Your task to perform on an android device: When is my next appointment? Image 0: 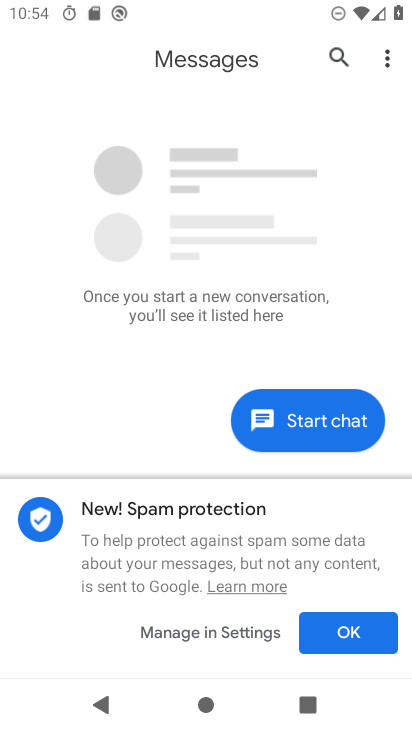
Step 0: press home button
Your task to perform on an android device: When is my next appointment? Image 1: 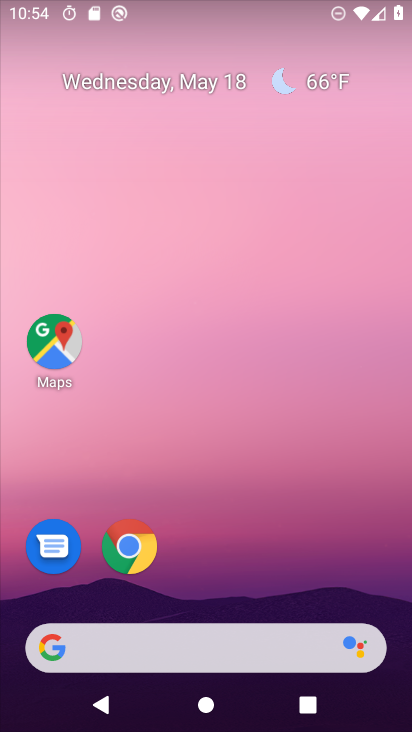
Step 1: press home button
Your task to perform on an android device: When is my next appointment? Image 2: 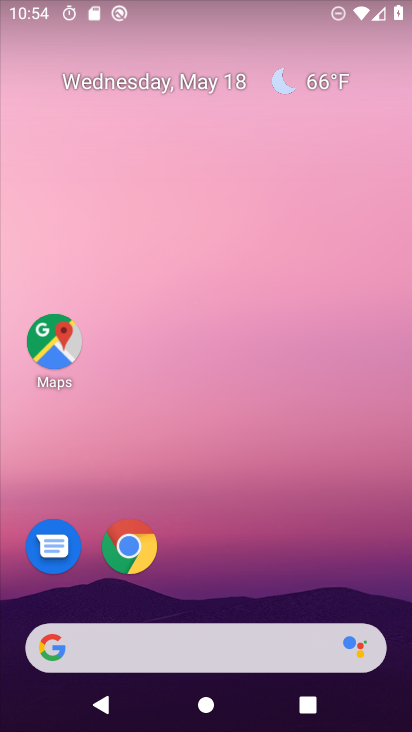
Step 2: click (157, 85)
Your task to perform on an android device: When is my next appointment? Image 3: 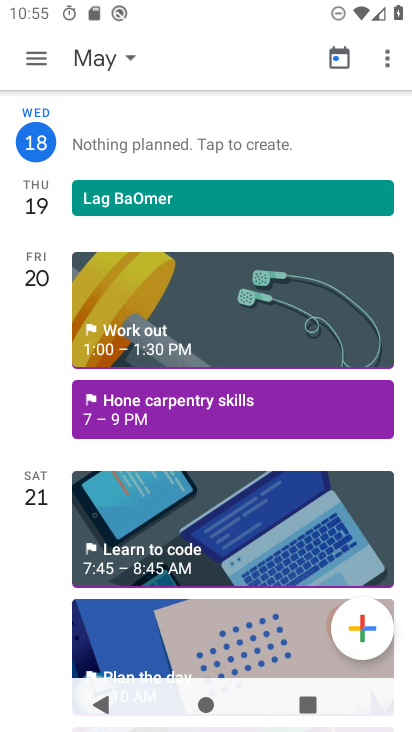
Step 3: task complete